Your task to perform on an android device: turn on the 24-hour format for clock Image 0: 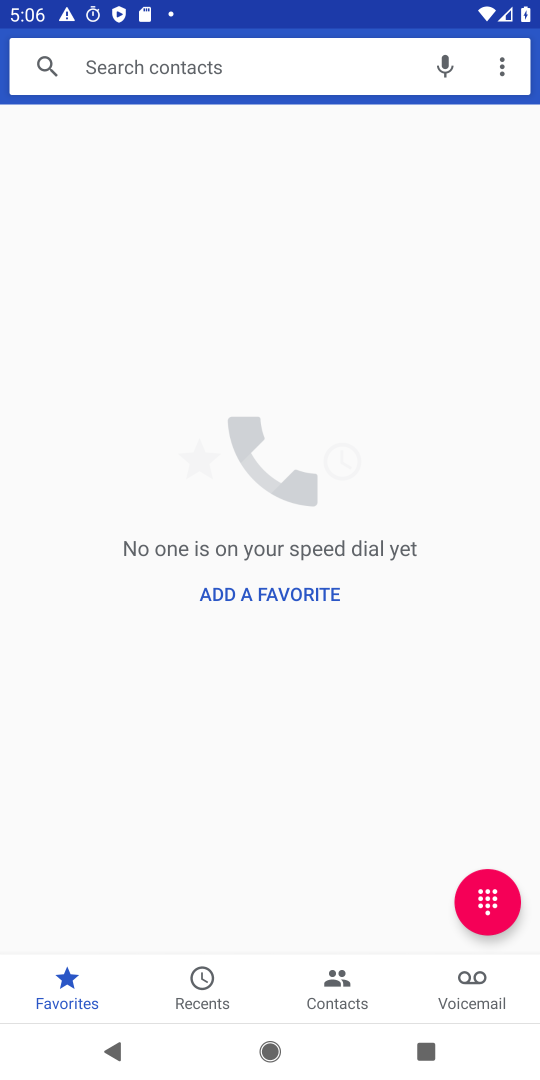
Step 0: press home button
Your task to perform on an android device: turn on the 24-hour format for clock Image 1: 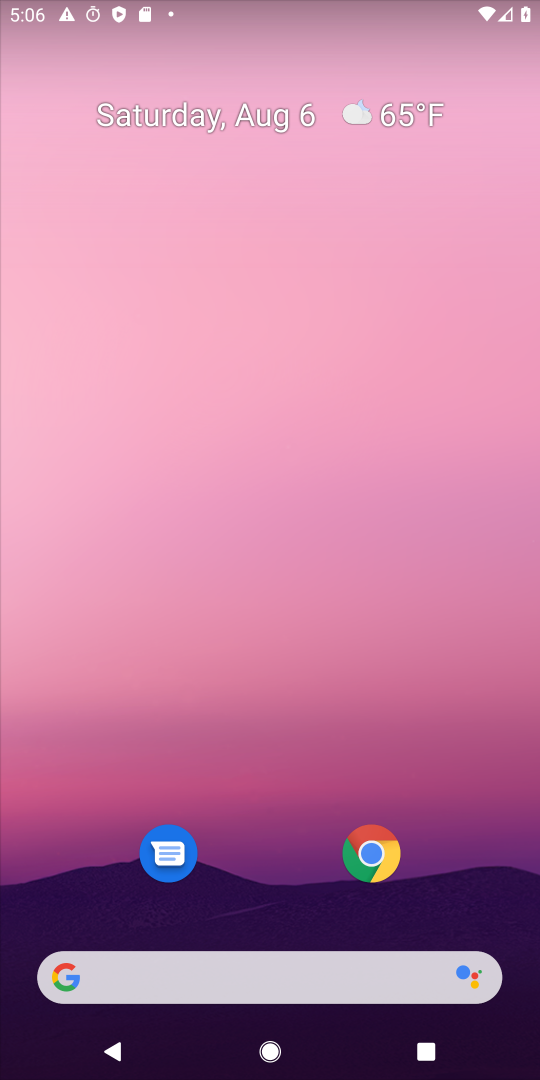
Step 1: drag from (261, 898) to (198, 70)
Your task to perform on an android device: turn on the 24-hour format for clock Image 2: 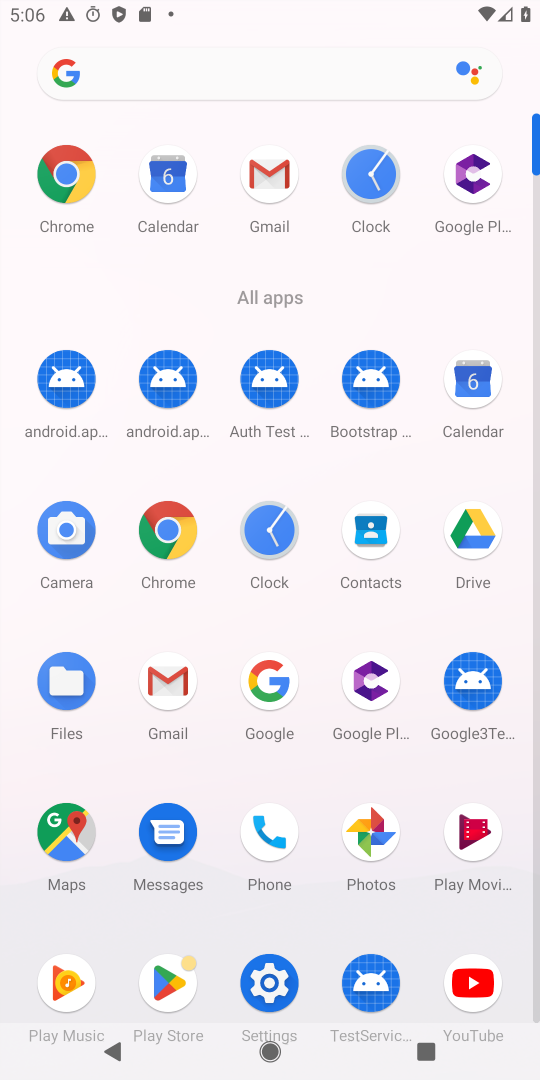
Step 2: click (269, 517)
Your task to perform on an android device: turn on the 24-hour format for clock Image 3: 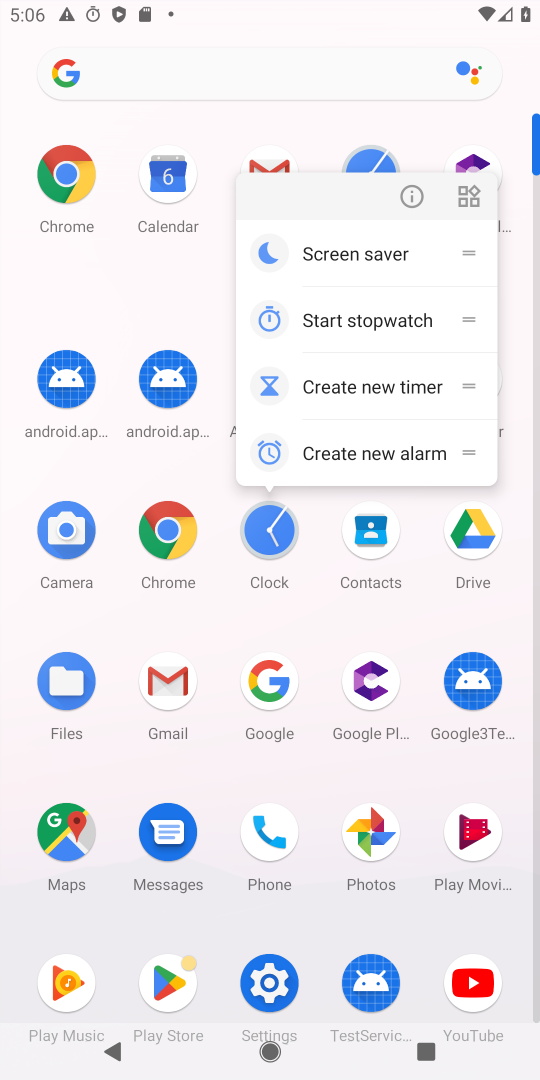
Step 3: click (264, 518)
Your task to perform on an android device: turn on the 24-hour format for clock Image 4: 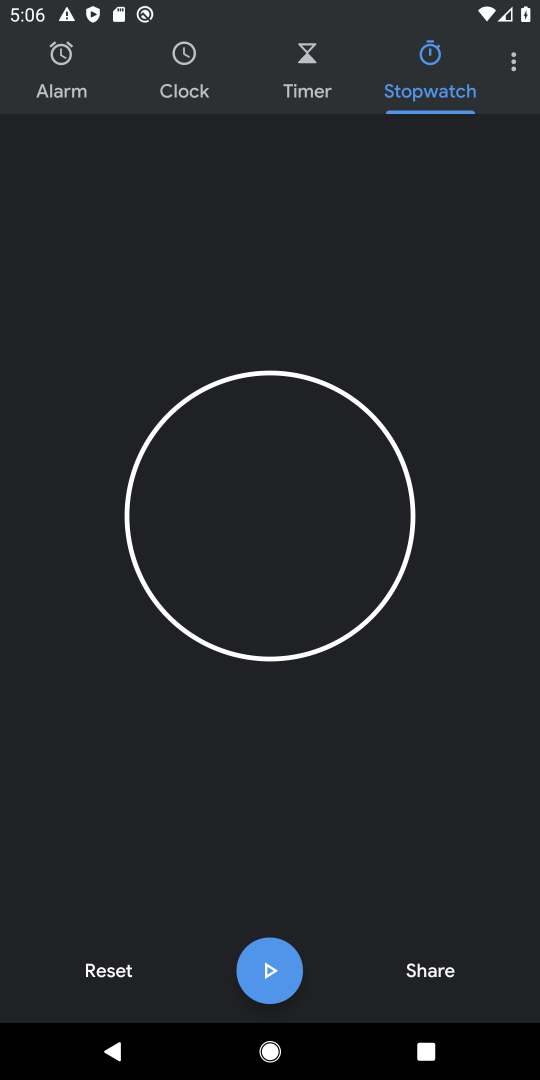
Step 4: click (520, 56)
Your task to perform on an android device: turn on the 24-hour format for clock Image 5: 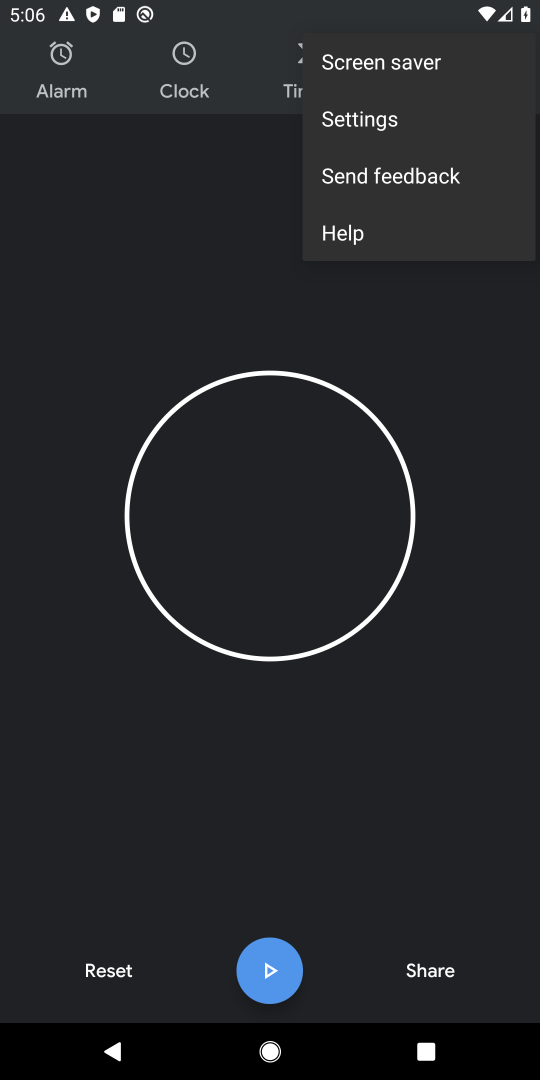
Step 5: click (347, 128)
Your task to perform on an android device: turn on the 24-hour format for clock Image 6: 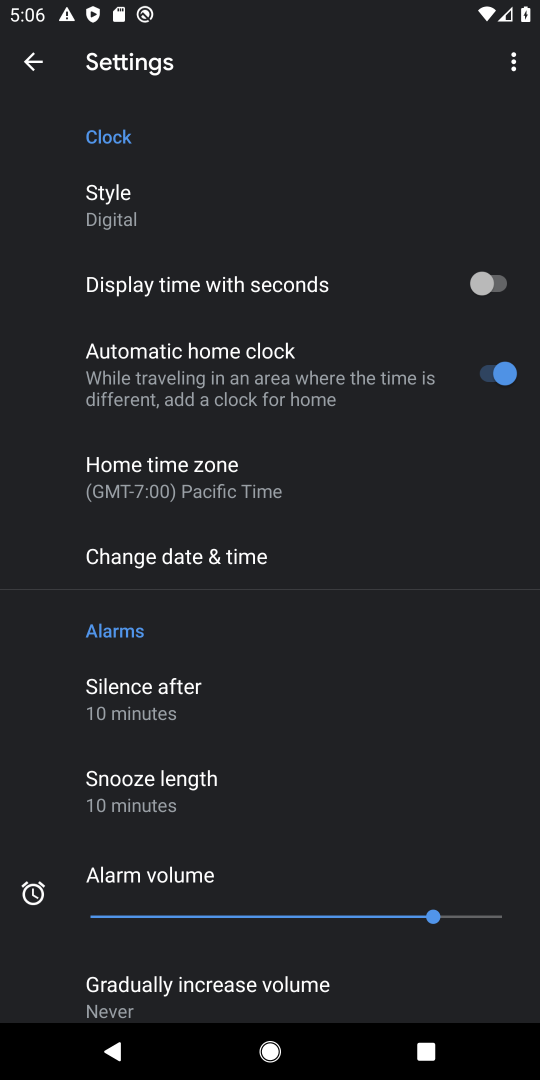
Step 6: click (180, 558)
Your task to perform on an android device: turn on the 24-hour format for clock Image 7: 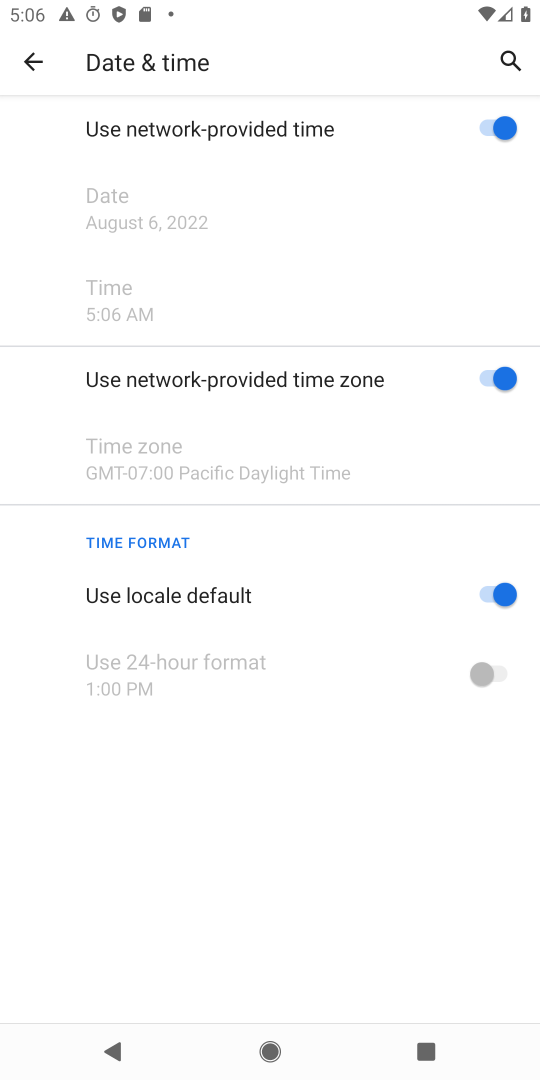
Step 7: click (490, 596)
Your task to perform on an android device: turn on the 24-hour format for clock Image 8: 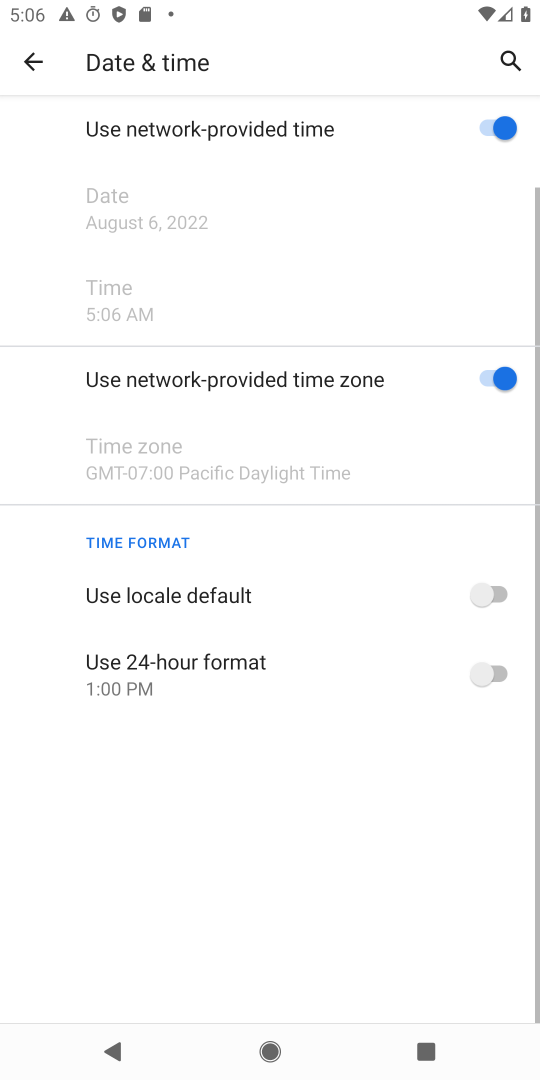
Step 8: click (491, 676)
Your task to perform on an android device: turn on the 24-hour format for clock Image 9: 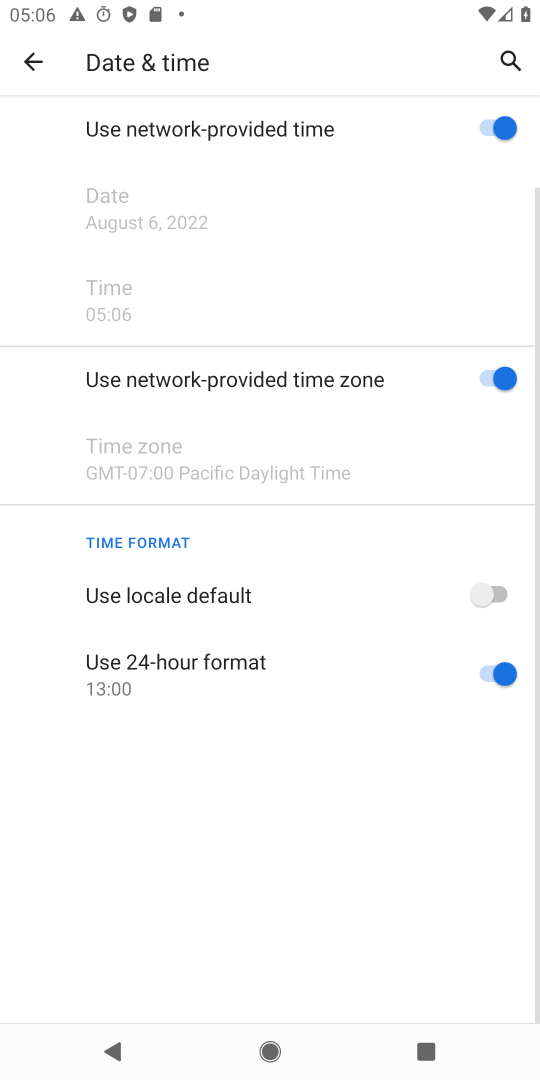
Step 9: task complete